Your task to perform on an android device: Go to sound settings Image 0: 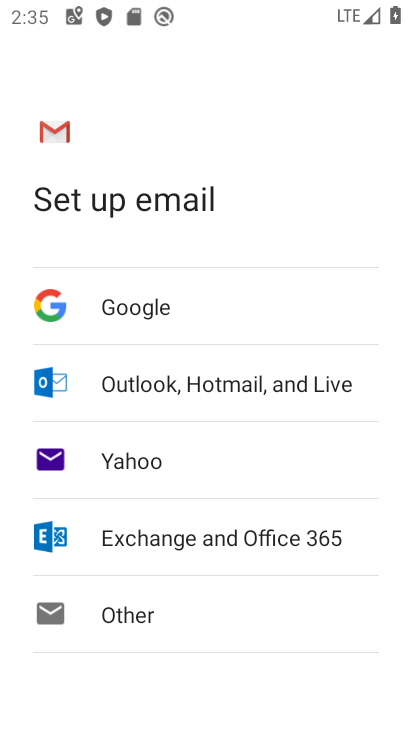
Step 0: press home button
Your task to perform on an android device: Go to sound settings Image 1: 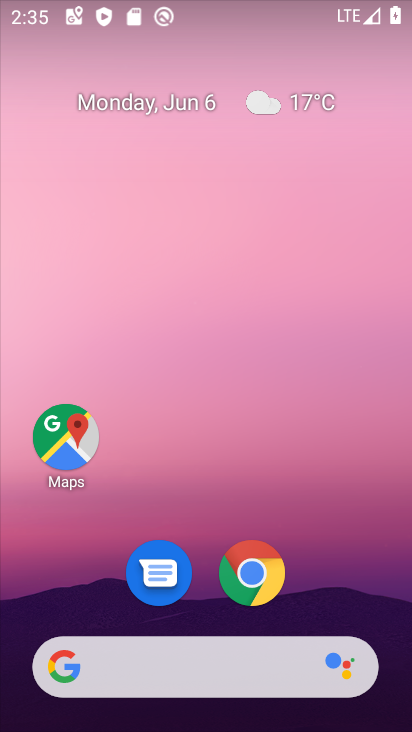
Step 1: drag from (353, 597) to (345, 102)
Your task to perform on an android device: Go to sound settings Image 2: 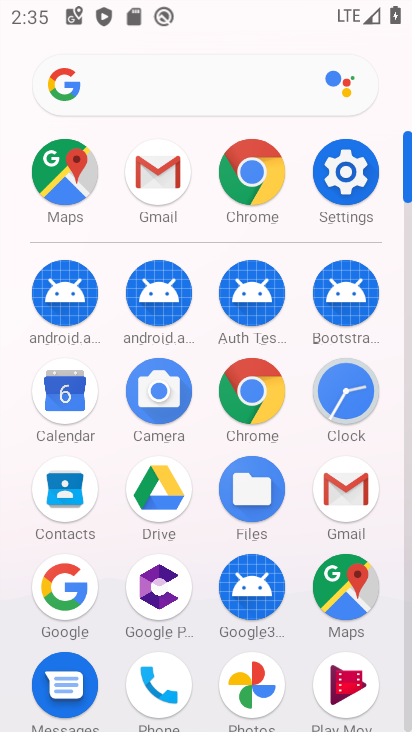
Step 2: click (361, 178)
Your task to perform on an android device: Go to sound settings Image 3: 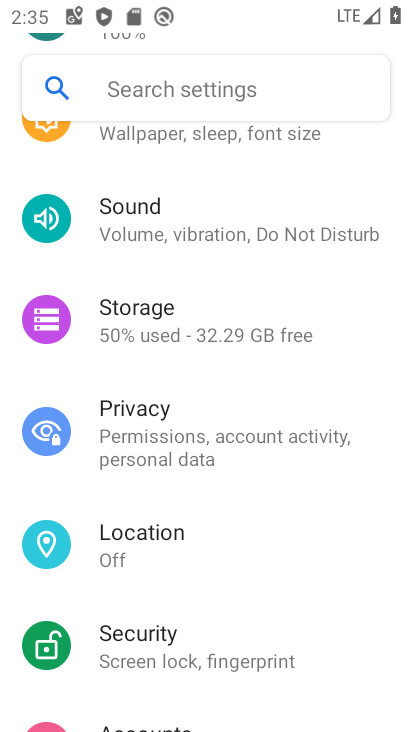
Step 3: drag from (366, 346) to (375, 427)
Your task to perform on an android device: Go to sound settings Image 4: 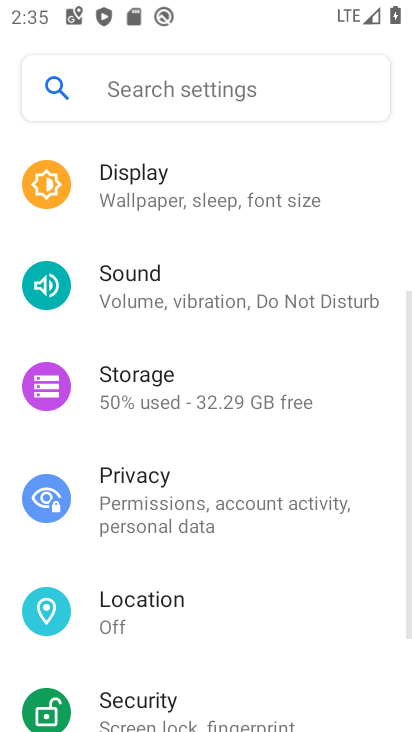
Step 4: drag from (356, 349) to (334, 432)
Your task to perform on an android device: Go to sound settings Image 5: 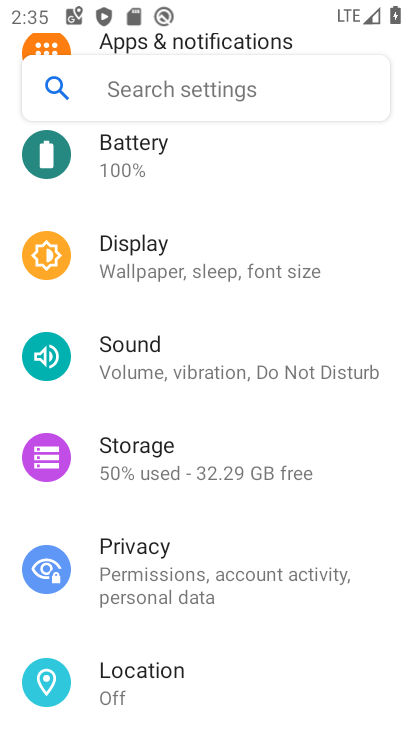
Step 5: drag from (355, 237) to (384, 392)
Your task to perform on an android device: Go to sound settings Image 6: 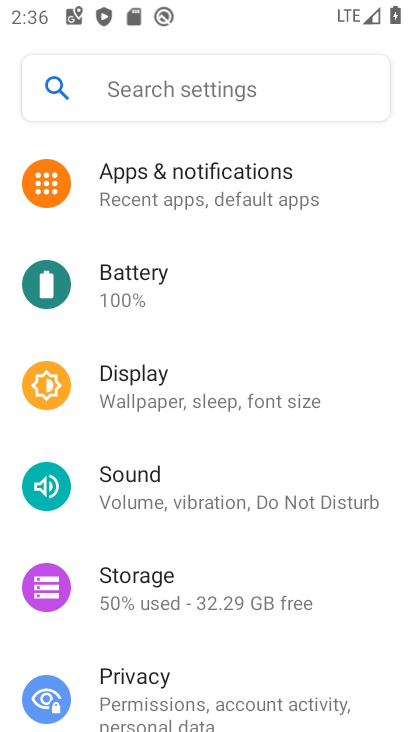
Step 6: drag from (363, 210) to (364, 414)
Your task to perform on an android device: Go to sound settings Image 7: 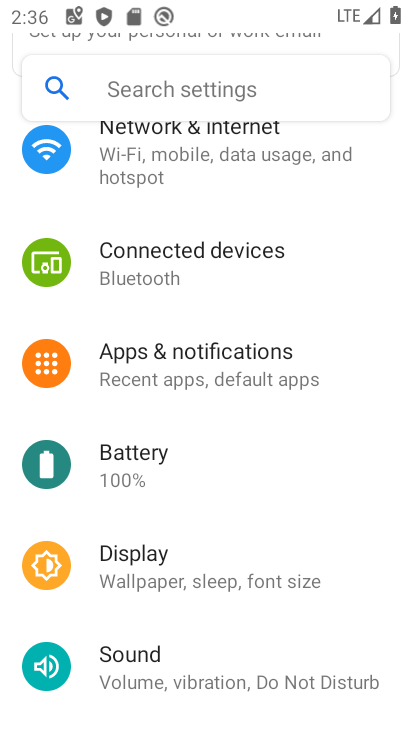
Step 7: click (256, 680)
Your task to perform on an android device: Go to sound settings Image 8: 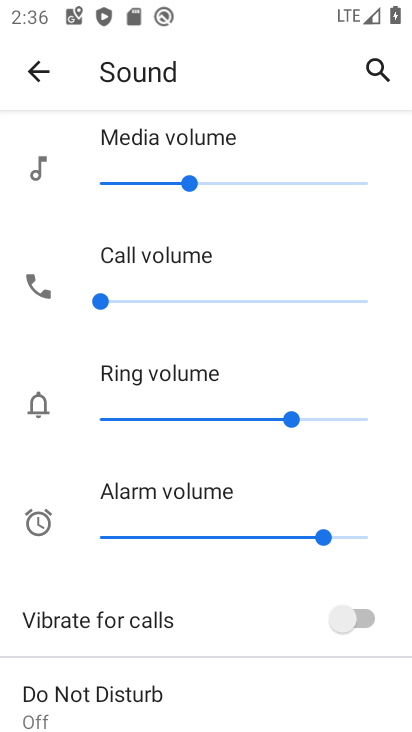
Step 8: task complete